Your task to perform on an android device: Find coffee shops on Maps Image 0: 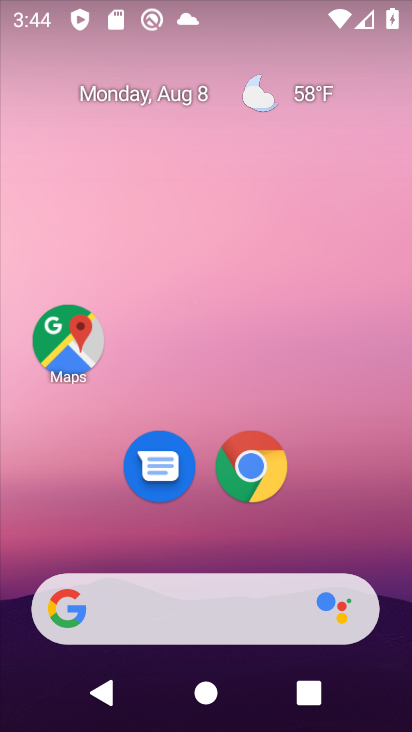
Step 0: drag from (178, 605) to (202, 360)
Your task to perform on an android device: Find coffee shops on Maps Image 1: 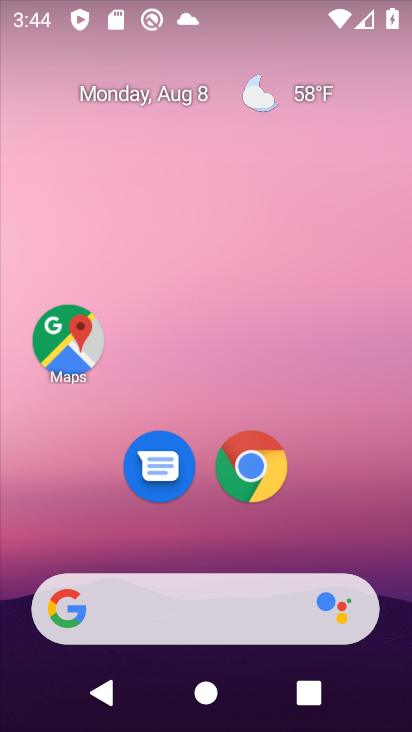
Step 1: drag from (192, 613) to (179, 139)
Your task to perform on an android device: Find coffee shops on Maps Image 2: 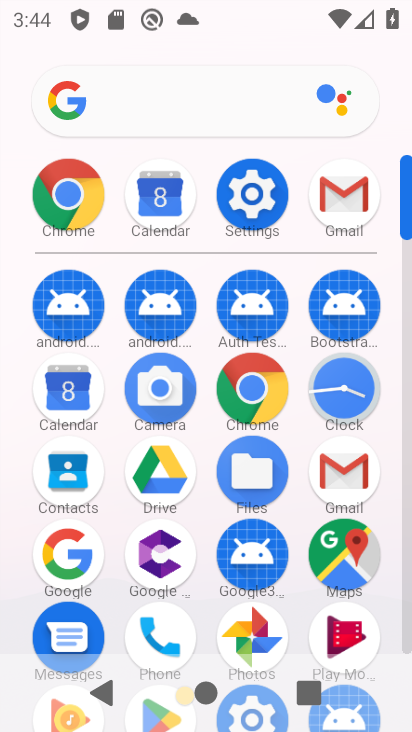
Step 2: click (359, 546)
Your task to perform on an android device: Find coffee shops on Maps Image 3: 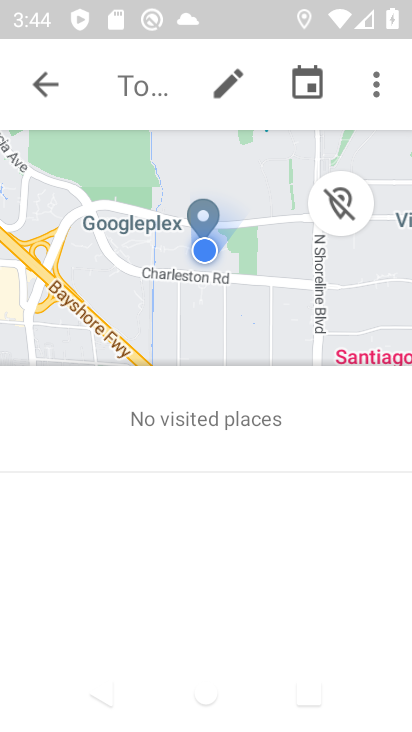
Step 3: click (51, 97)
Your task to perform on an android device: Find coffee shops on Maps Image 4: 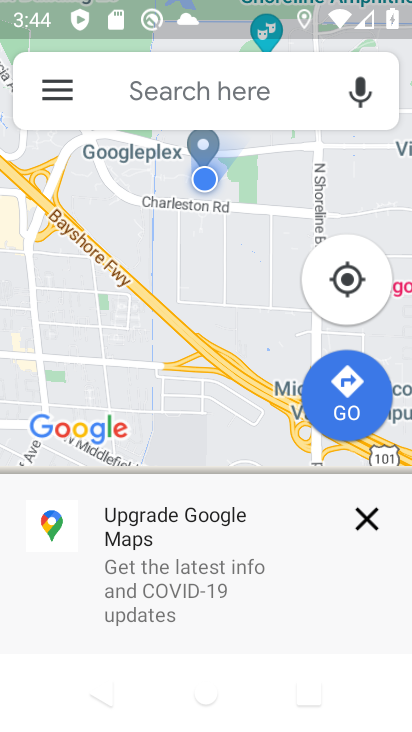
Step 4: click (131, 67)
Your task to perform on an android device: Find coffee shops on Maps Image 5: 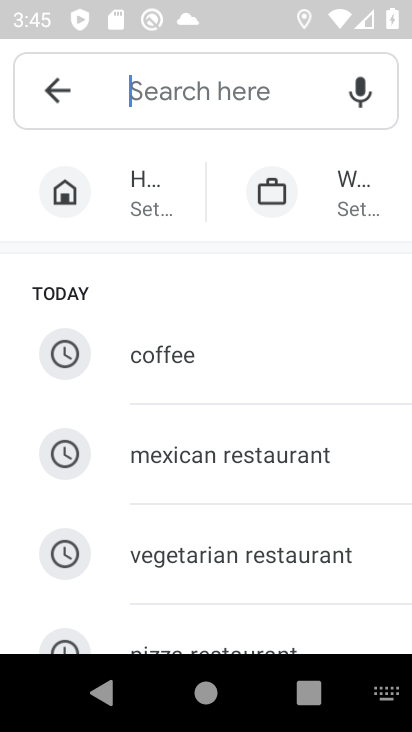
Step 5: click (224, 359)
Your task to perform on an android device: Find coffee shops on Maps Image 6: 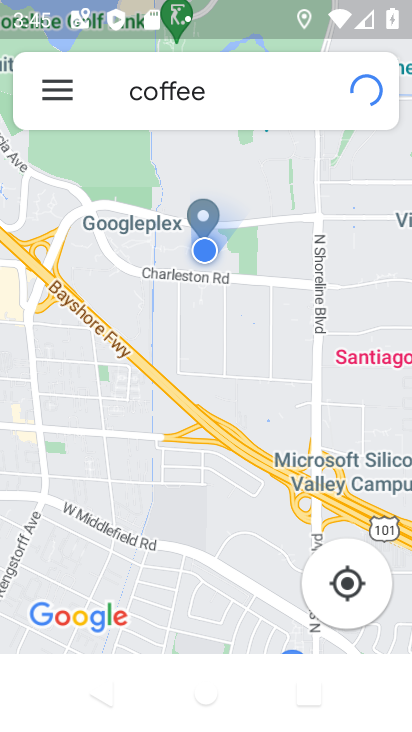
Step 6: task complete